Your task to perform on an android device: turn off location Image 0: 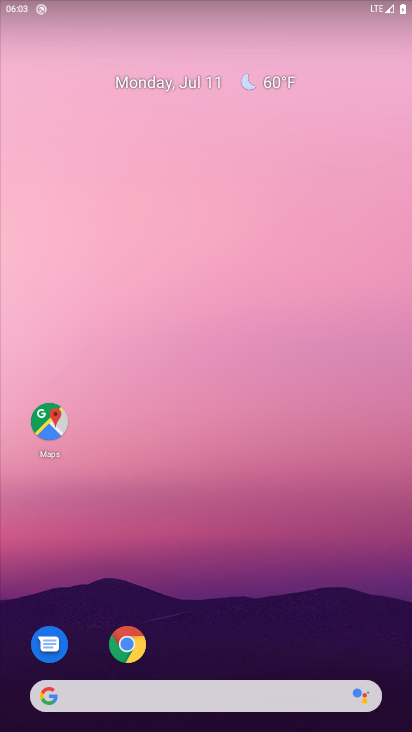
Step 0: drag from (227, 638) to (215, 228)
Your task to perform on an android device: turn off location Image 1: 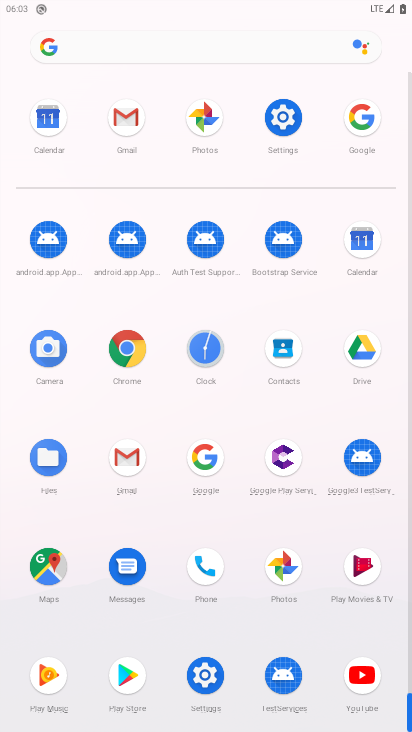
Step 1: click (201, 680)
Your task to perform on an android device: turn off location Image 2: 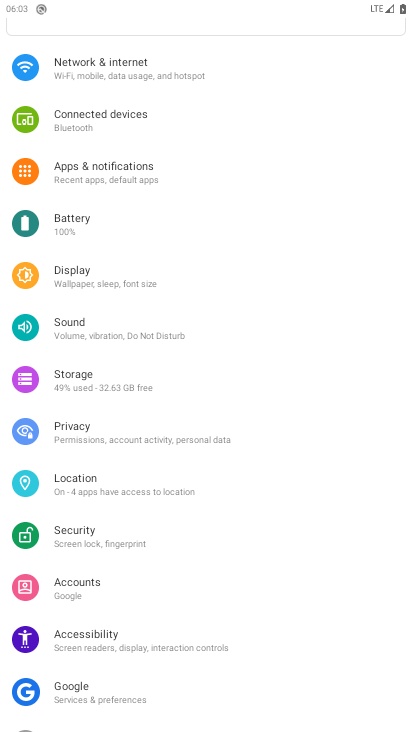
Step 2: click (82, 482)
Your task to perform on an android device: turn off location Image 3: 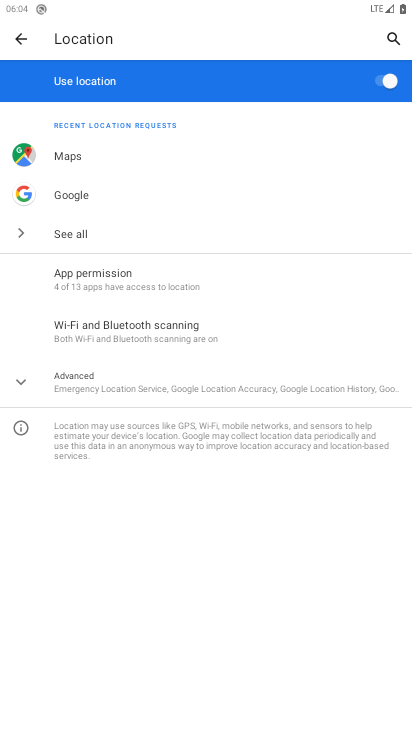
Step 3: click (384, 81)
Your task to perform on an android device: turn off location Image 4: 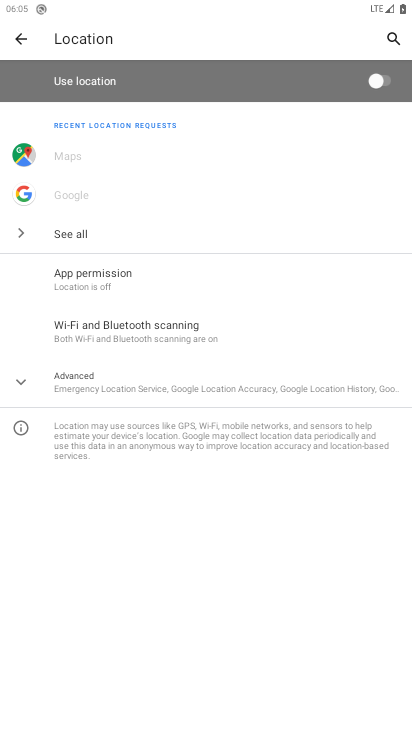
Step 4: click (72, 384)
Your task to perform on an android device: turn off location Image 5: 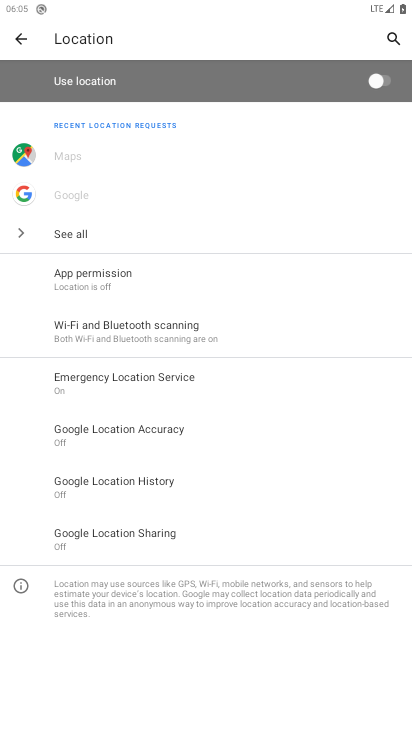
Step 5: task complete